Your task to perform on an android device: turn on data saver in the chrome app Image 0: 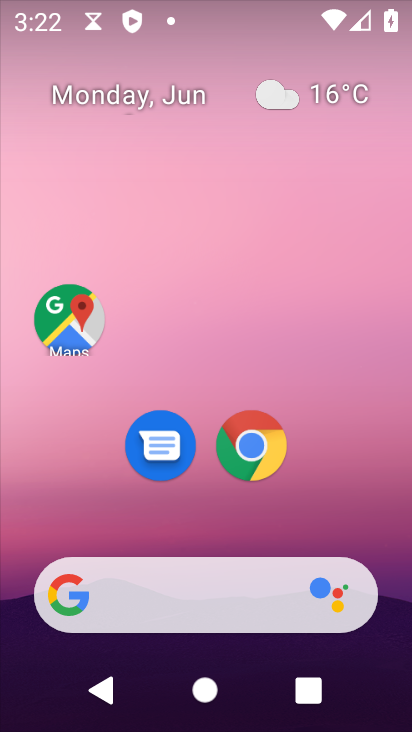
Step 0: click (246, 448)
Your task to perform on an android device: turn on data saver in the chrome app Image 1: 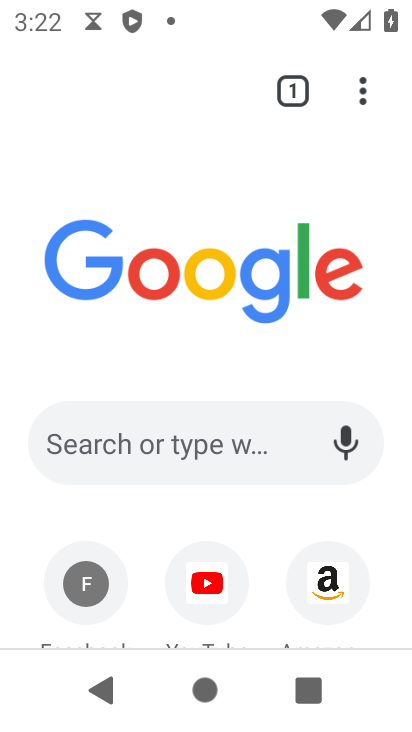
Step 1: drag from (356, 101) to (250, 484)
Your task to perform on an android device: turn on data saver in the chrome app Image 2: 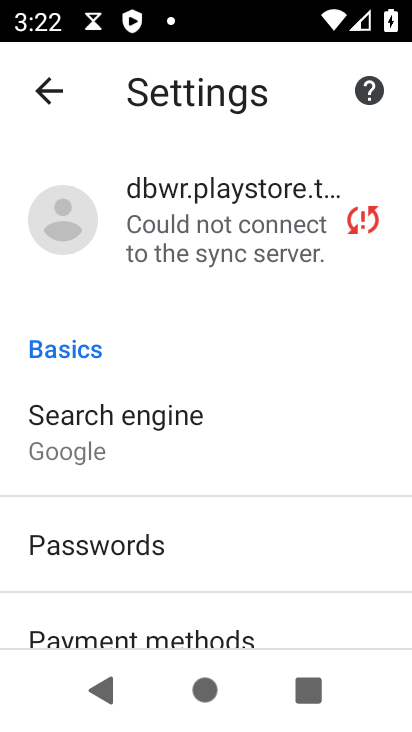
Step 2: drag from (169, 579) to (366, 51)
Your task to perform on an android device: turn on data saver in the chrome app Image 3: 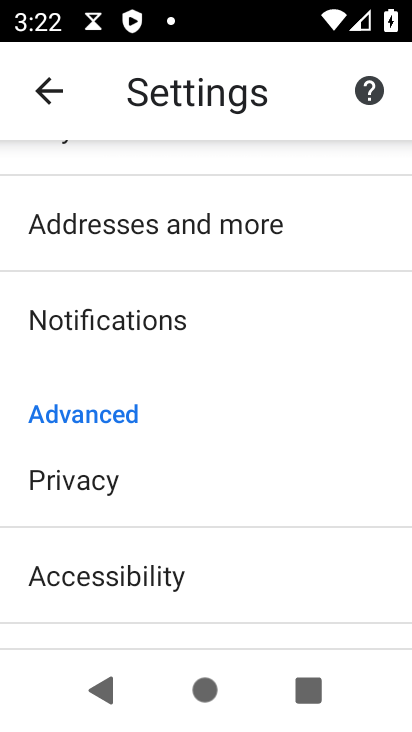
Step 3: drag from (161, 618) to (265, 132)
Your task to perform on an android device: turn on data saver in the chrome app Image 4: 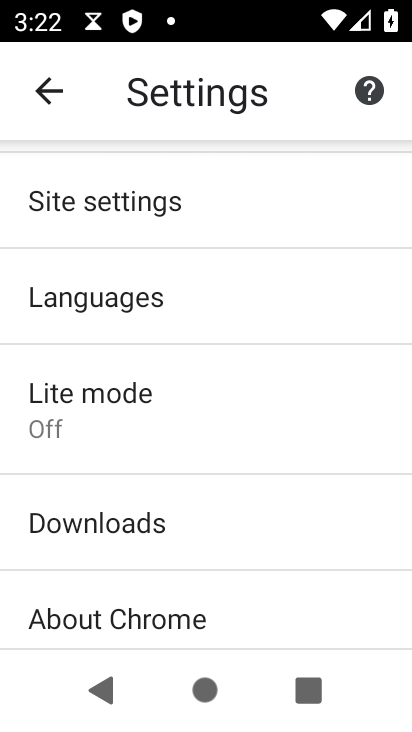
Step 4: click (194, 402)
Your task to perform on an android device: turn on data saver in the chrome app Image 5: 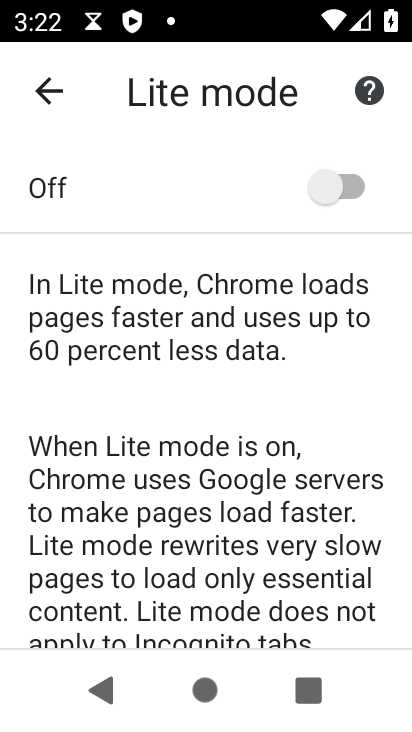
Step 5: click (374, 193)
Your task to perform on an android device: turn on data saver in the chrome app Image 6: 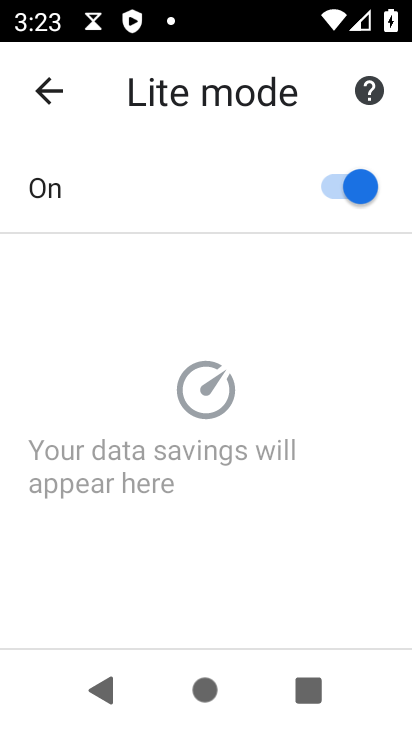
Step 6: task complete